Your task to perform on an android device: What's the weather today? Image 0: 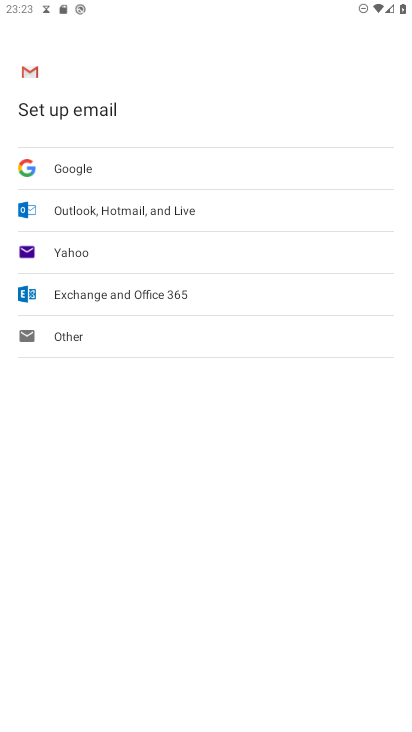
Step 0: press home button
Your task to perform on an android device: What's the weather today? Image 1: 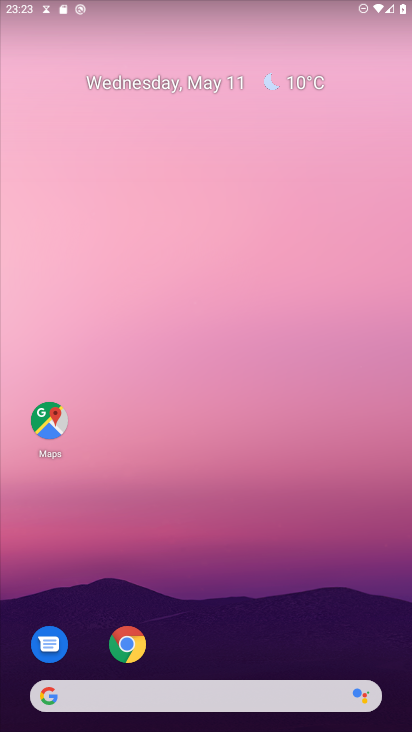
Step 1: click (319, 66)
Your task to perform on an android device: What's the weather today? Image 2: 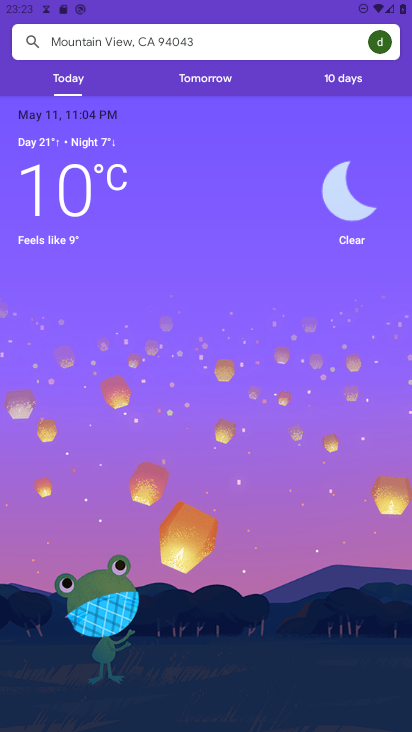
Step 2: task complete